Your task to perform on an android device: Open my contact list Image 0: 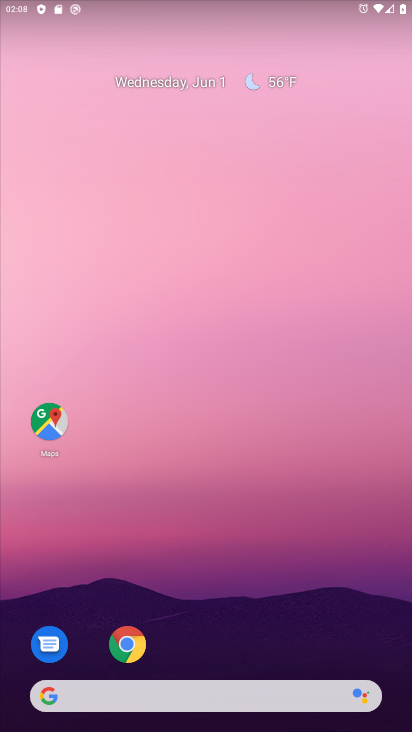
Step 0: drag from (187, 652) to (187, 436)
Your task to perform on an android device: Open my contact list Image 1: 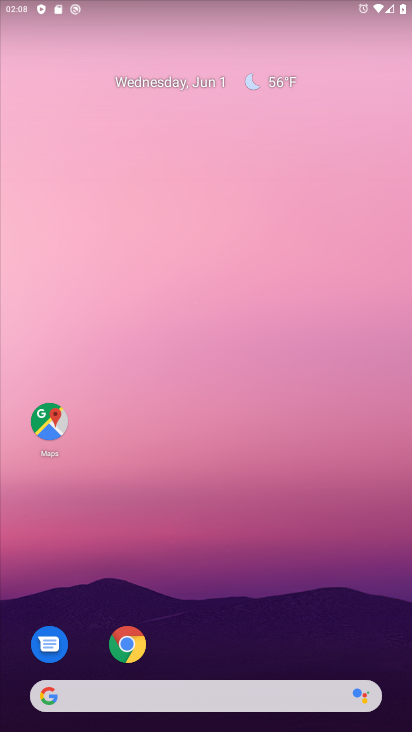
Step 1: drag from (241, 623) to (239, 308)
Your task to perform on an android device: Open my contact list Image 2: 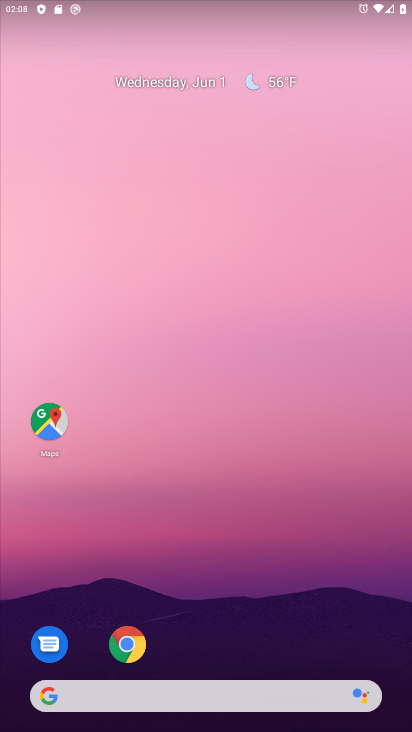
Step 2: drag from (229, 681) to (221, 252)
Your task to perform on an android device: Open my contact list Image 3: 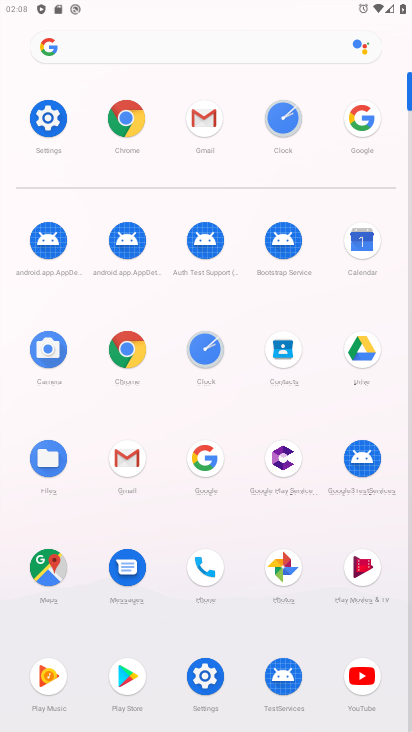
Step 3: click (293, 353)
Your task to perform on an android device: Open my contact list Image 4: 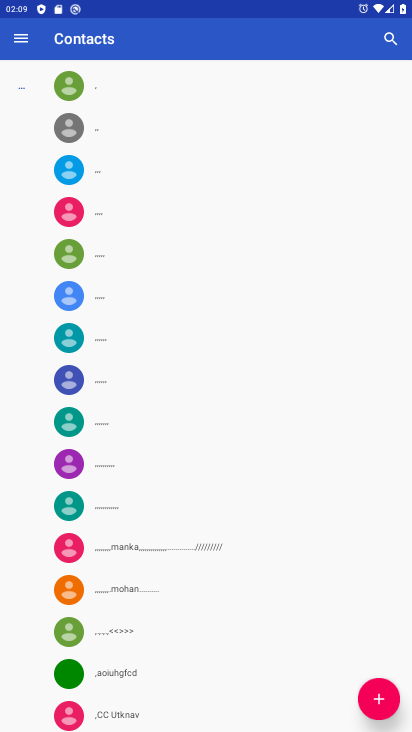
Step 4: task complete